Your task to perform on an android device: see sites visited before in the chrome app Image 0: 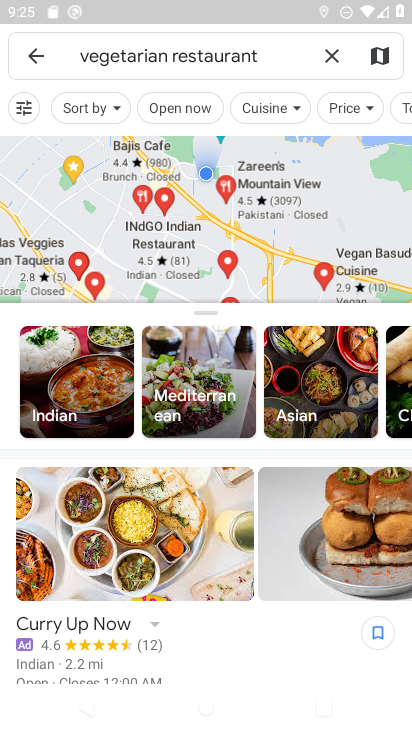
Step 0: press home button
Your task to perform on an android device: see sites visited before in the chrome app Image 1: 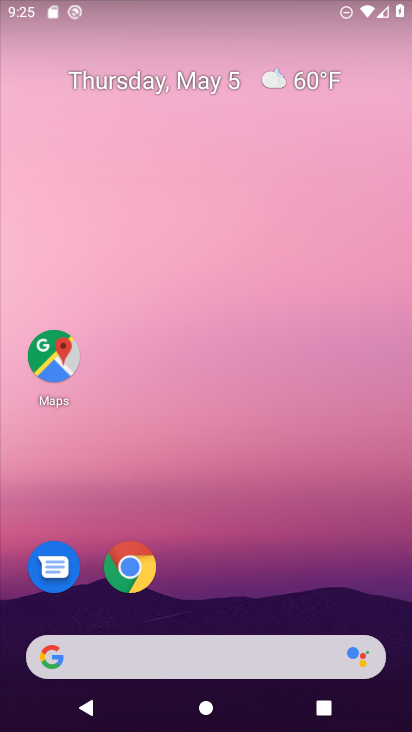
Step 1: click (125, 572)
Your task to perform on an android device: see sites visited before in the chrome app Image 2: 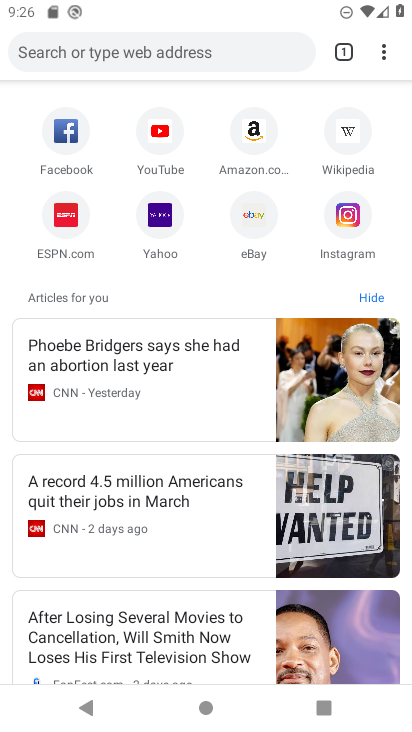
Step 2: task complete